Your task to perform on an android device: turn on location history Image 0: 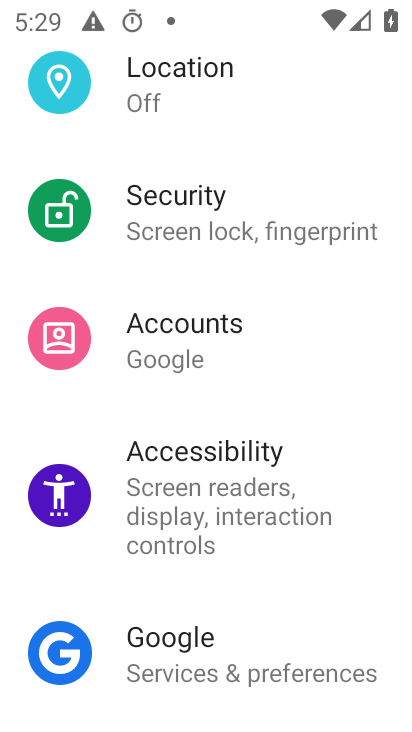
Step 0: click (167, 103)
Your task to perform on an android device: turn on location history Image 1: 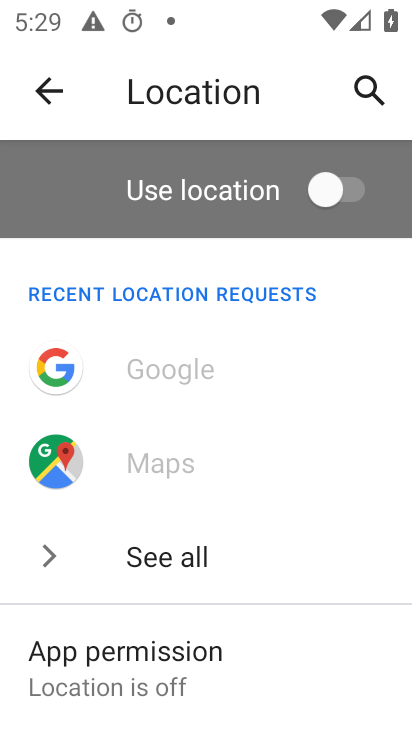
Step 1: drag from (205, 637) to (192, 316)
Your task to perform on an android device: turn on location history Image 2: 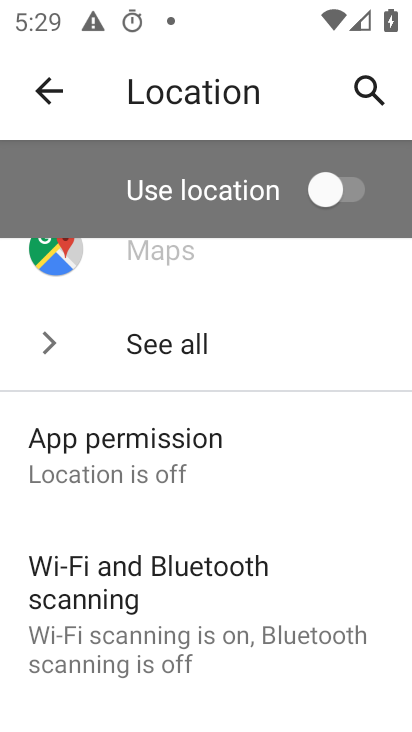
Step 2: drag from (203, 604) to (210, 349)
Your task to perform on an android device: turn on location history Image 3: 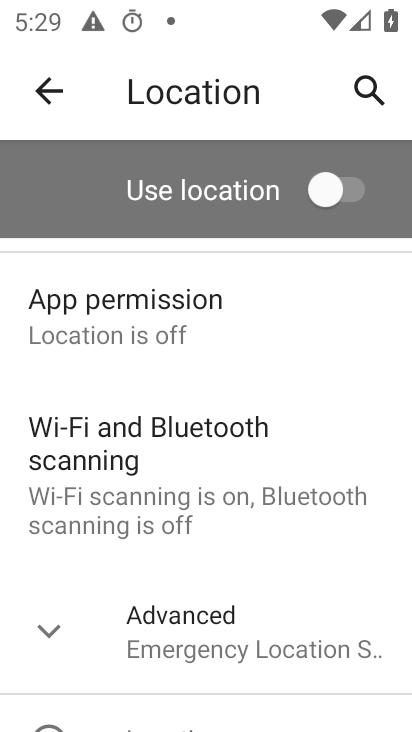
Step 3: drag from (181, 648) to (207, 387)
Your task to perform on an android device: turn on location history Image 4: 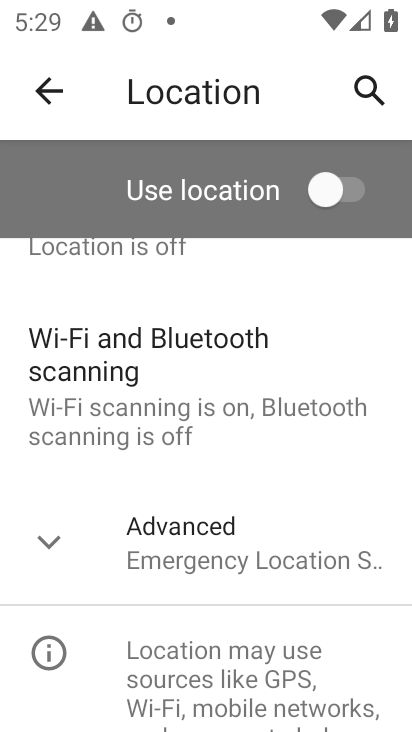
Step 4: click (192, 542)
Your task to perform on an android device: turn on location history Image 5: 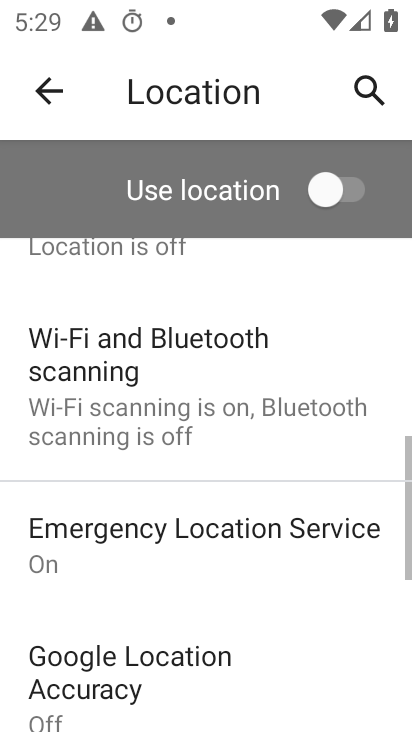
Step 5: drag from (175, 644) to (182, 293)
Your task to perform on an android device: turn on location history Image 6: 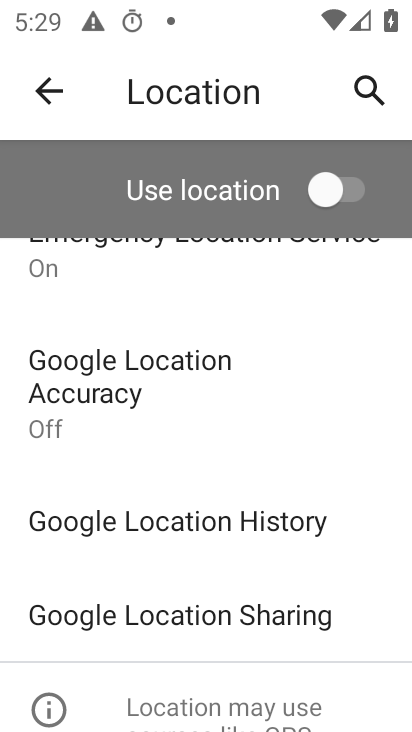
Step 6: click (165, 528)
Your task to perform on an android device: turn on location history Image 7: 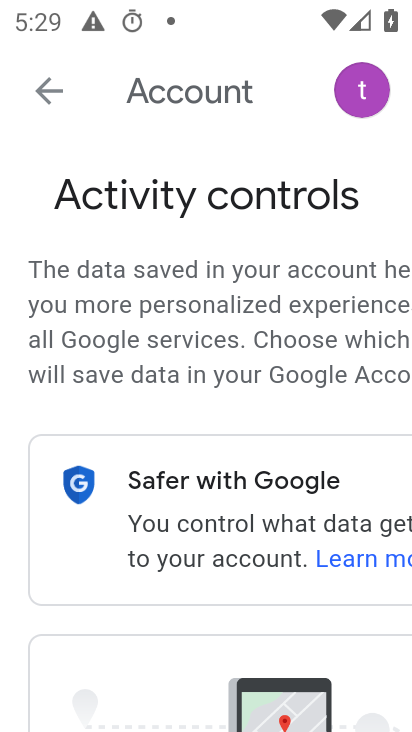
Step 7: task complete